Your task to perform on an android device: check data usage Image 0: 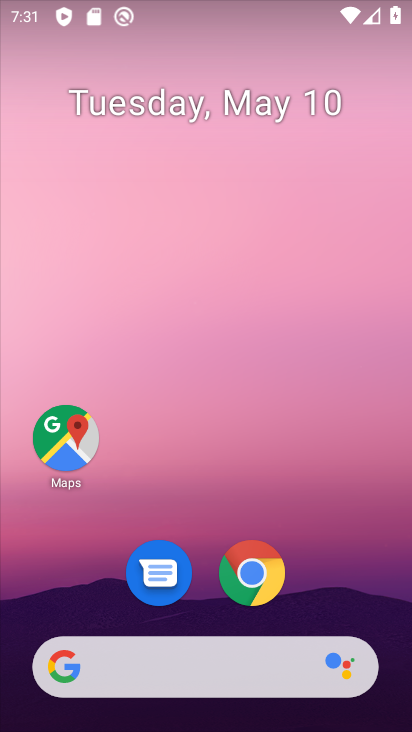
Step 0: drag from (336, 571) to (363, 158)
Your task to perform on an android device: check data usage Image 1: 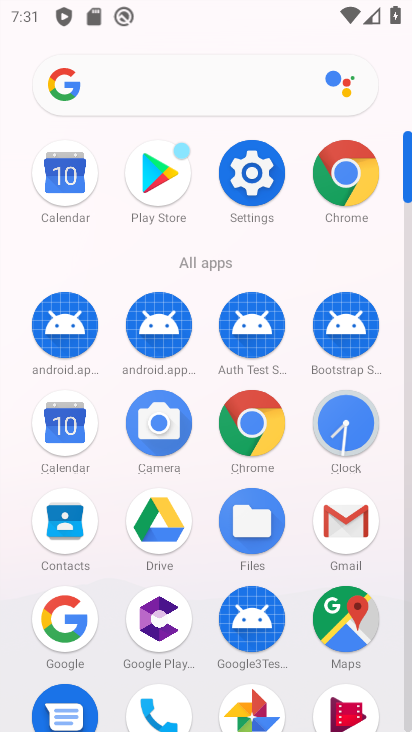
Step 1: click (239, 177)
Your task to perform on an android device: check data usage Image 2: 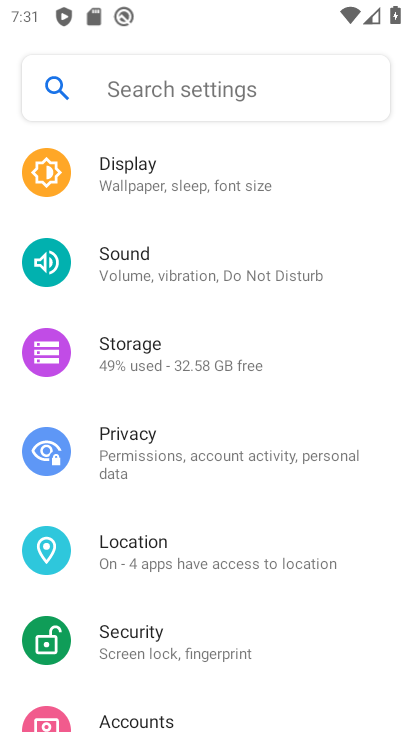
Step 2: drag from (255, 186) to (300, 525)
Your task to perform on an android device: check data usage Image 3: 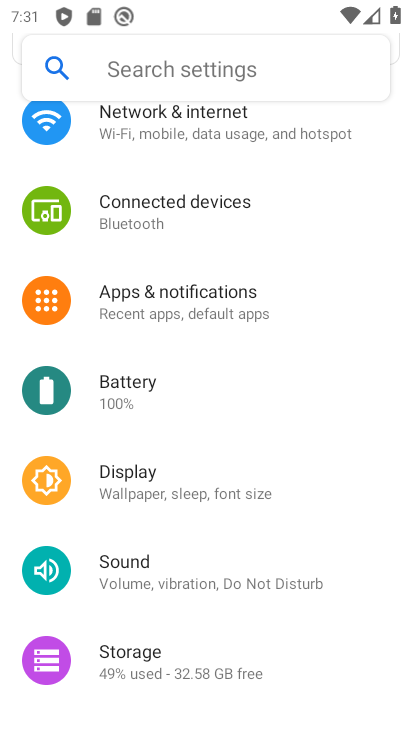
Step 3: drag from (286, 187) to (228, 595)
Your task to perform on an android device: check data usage Image 4: 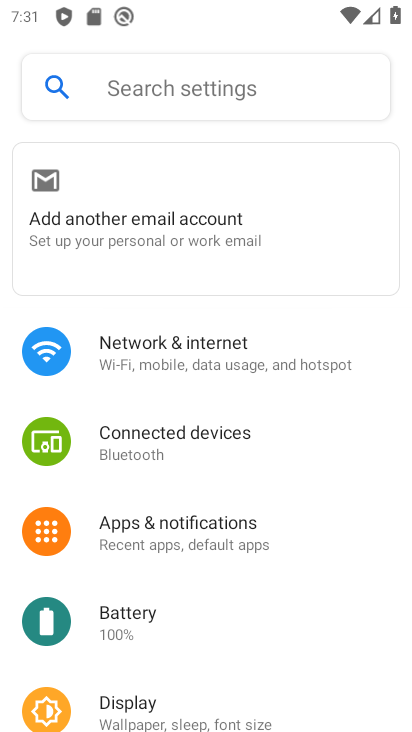
Step 4: click (212, 372)
Your task to perform on an android device: check data usage Image 5: 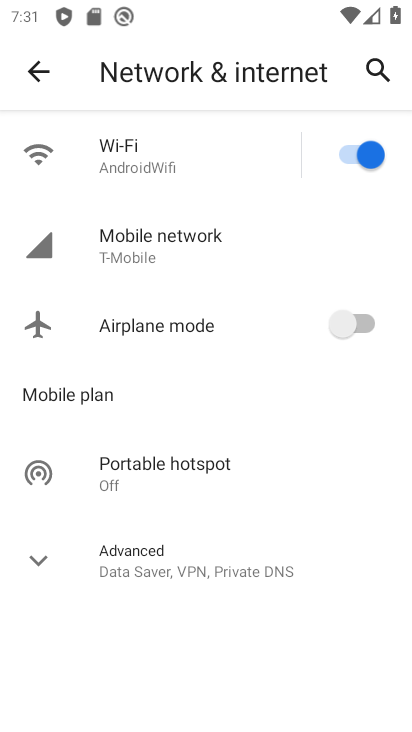
Step 5: click (190, 259)
Your task to perform on an android device: check data usage Image 6: 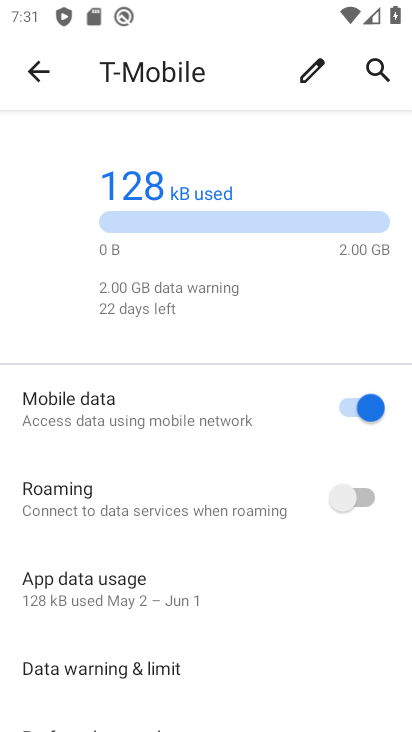
Step 6: task complete